Your task to perform on an android device: open the mobile data screen to see how much data has been used Image 0: 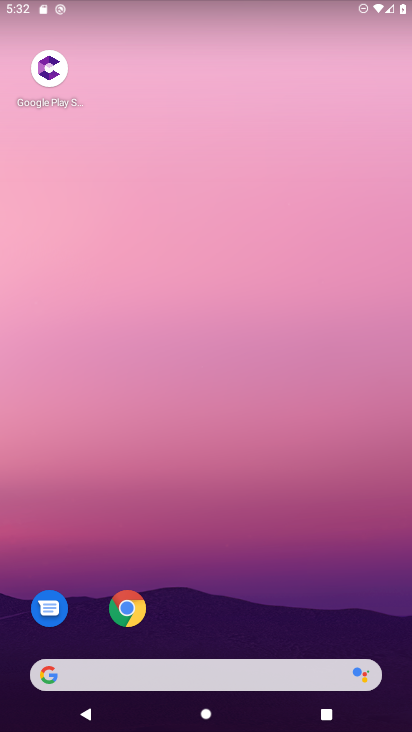
Step 0: drag from (388, 590) to (309, 18)
Your task to perform on an android device: open the mobile data screen to see how much data has been used Image 1: 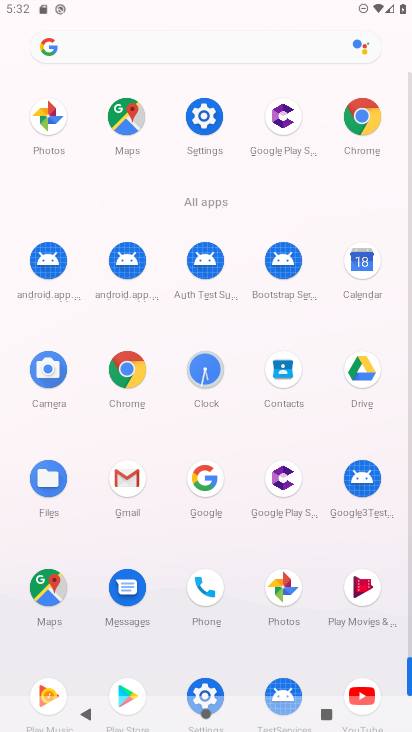
Step 1: click (202, 113)
Your task to perform on an android device: open the mobile data screen to see how much data has been used Image 2: 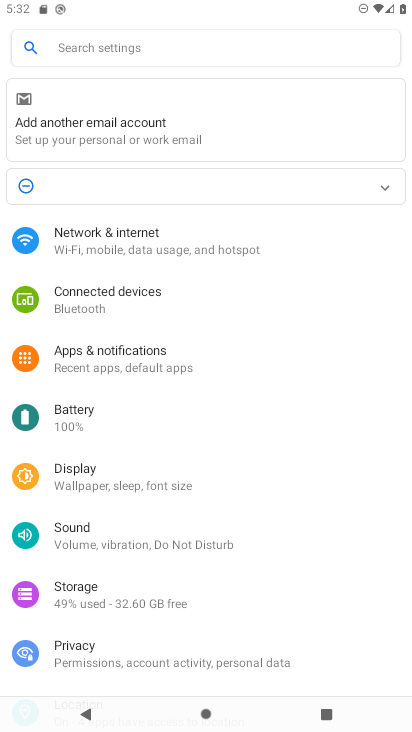
Step 2: click (136, 239)
Your task to perform on an android device: open the mobile data screen to see how much data has been used Image 3: 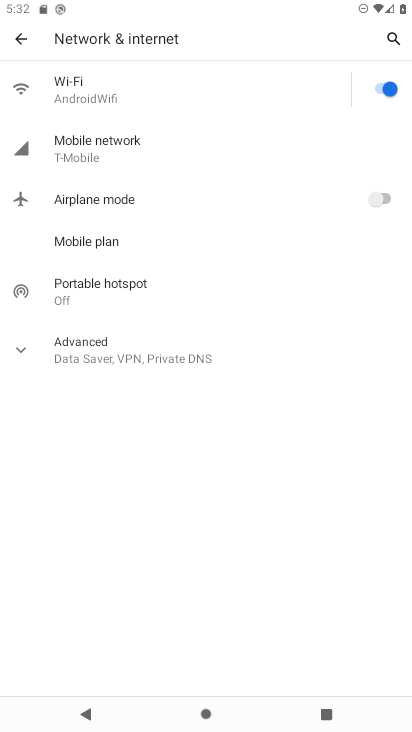
Step 3: click (108, 156)
Your task to perform on an android device: open the mobile data screen to see how much data has been used Image 4: 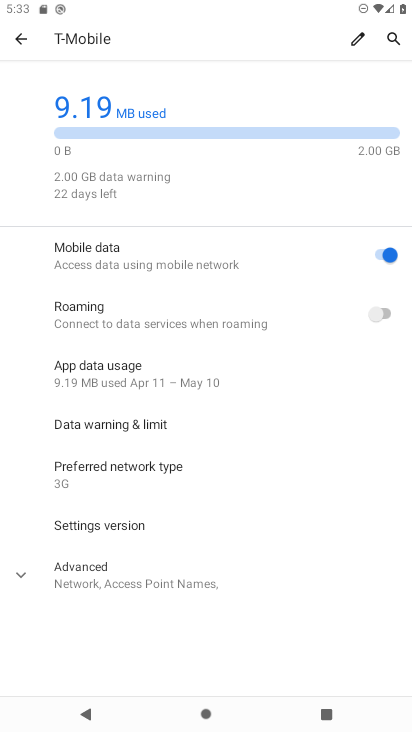
Step 4: task complete